Your task to perform on an android device: turn on improve location accuracy Image 0: 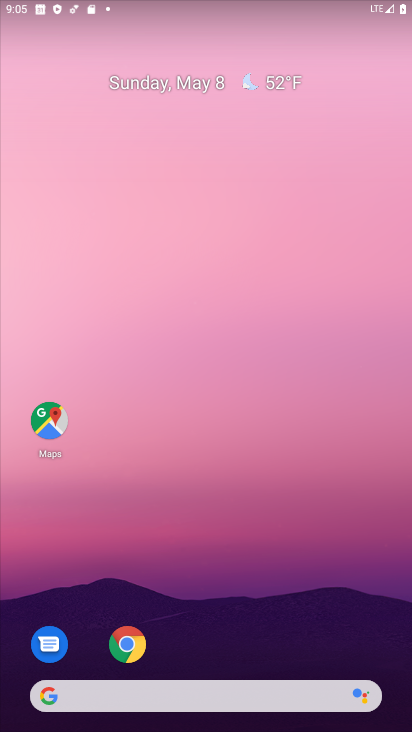
Step 0: drag from (209, 456) to (170, 23)
Your task to perform on an android device: turn on improve location accuracy Image 1: 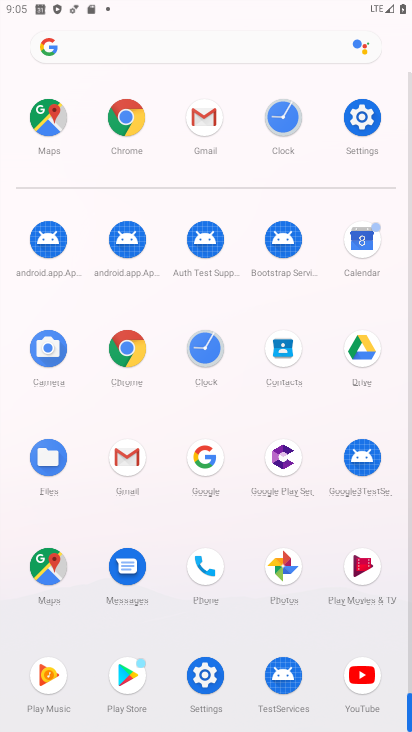
Step 1: click (369, 100)
Your task to perform on an android device: turn on improve location accuracy Image 2: 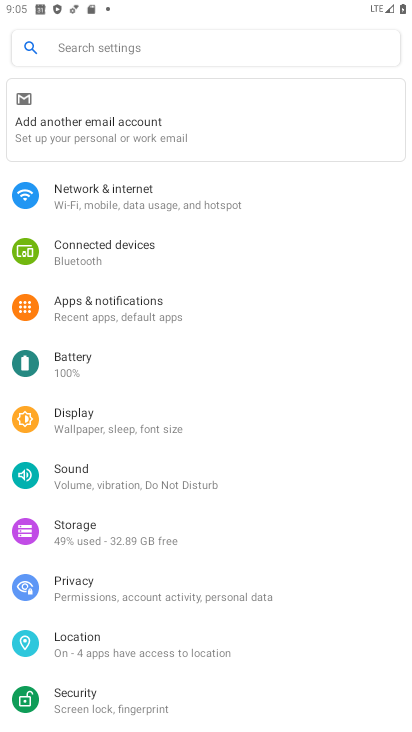
Step 2: drag from (151, 557) to (191, 158)
Your task to perform on an android device: turn on improve location accuracy Image 3: 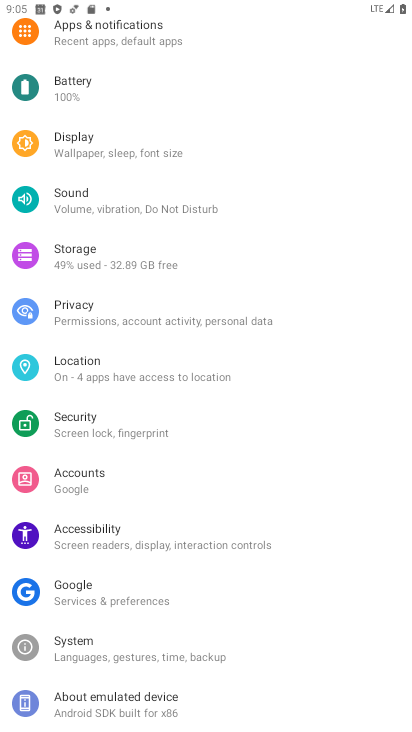
Step 3: click (118, 373)
Your task to perform on an android device: turn on improve location accuracy Image 4: 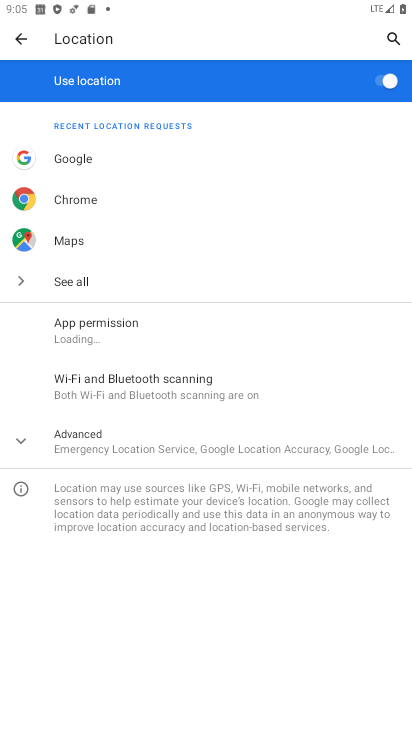
Step 4: click (144, 451)
Your task to perform on an android device: turn on improve location accuracy Image 5: 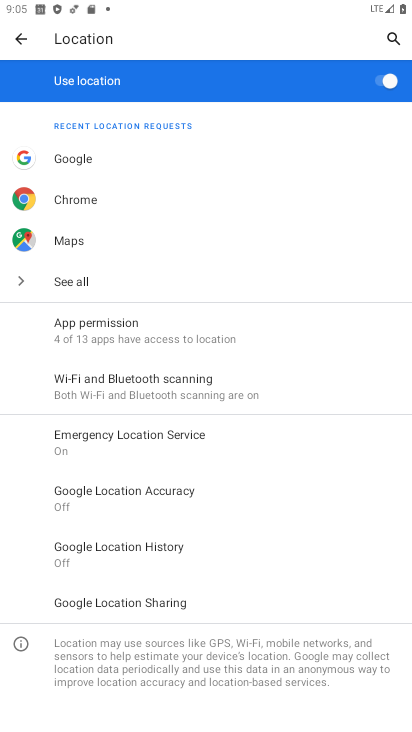
Step 5: click (135, 488)
Your task to perform on an android device: turn on improve location accuracy Image 6: 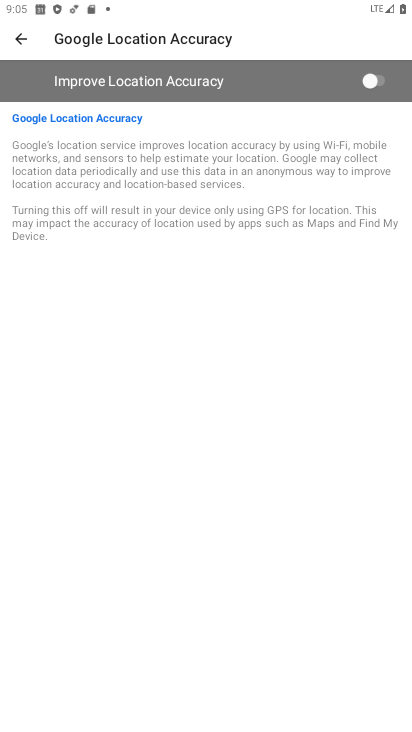
Step 6: click (378, 82)
Your task to perform on an android device: turn on improve location accuracy Image 7: 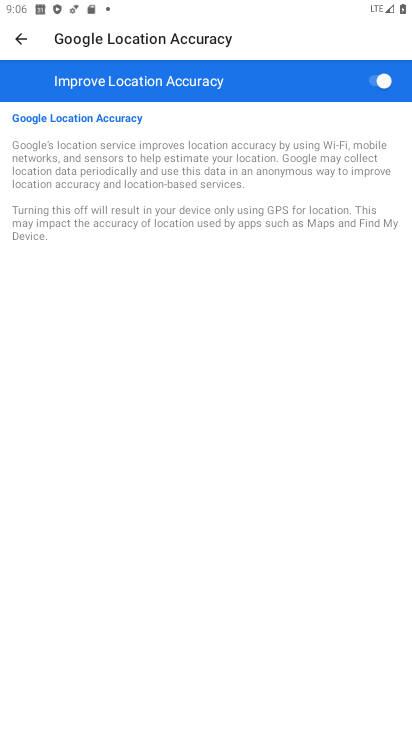
Step 7: task complete